Your task to perform on an android device: Open Chrome and go to the settings page Image 0: 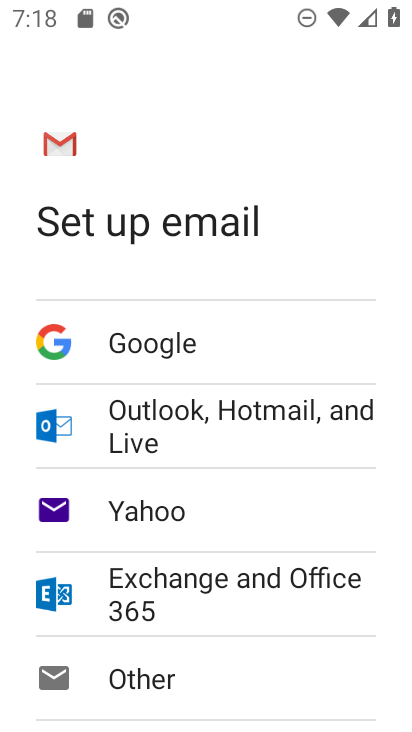
Step 0: press home button
Your task to perform on an android device: Open Chrome and go to the settings page Image 1: 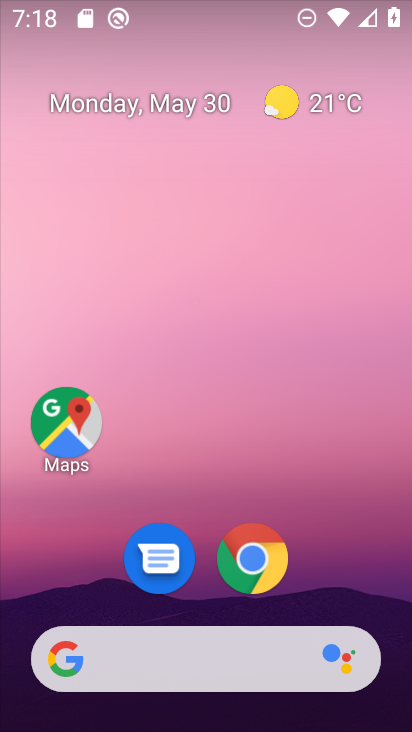
Step 1: click (254, 560)
Your task to perform on an android device: Open Chrome and go to the settings page Image 2: 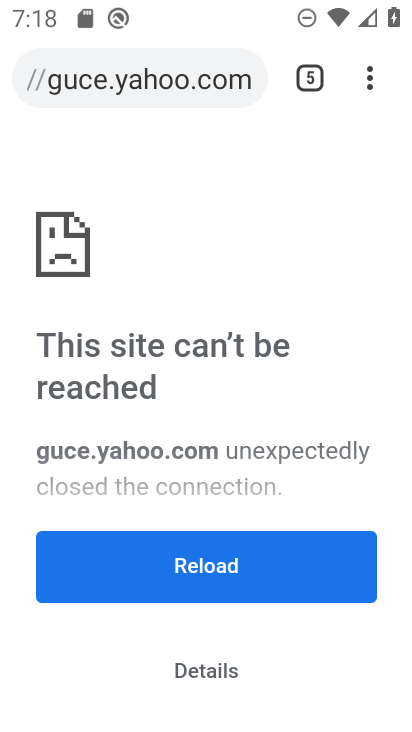
Step 2: click (374, 78)
Your task to perform on an android device: Open Chrome and go to the settings page Image 3: 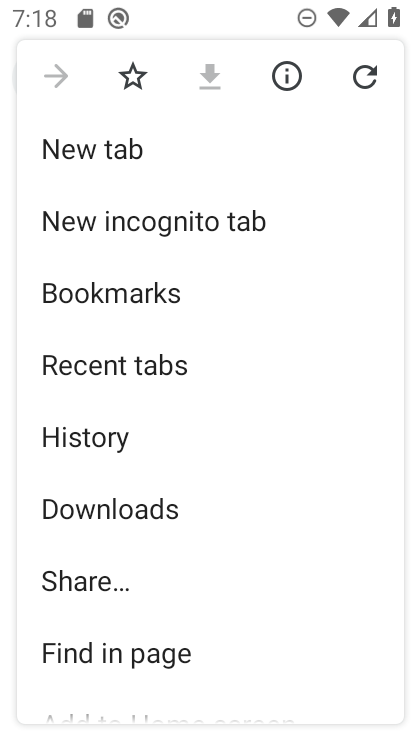
Step 3: drag from (230, 602) to (202, 319)
Your task to perform on an android device: Open Chrome and go to the settings page Image 4: 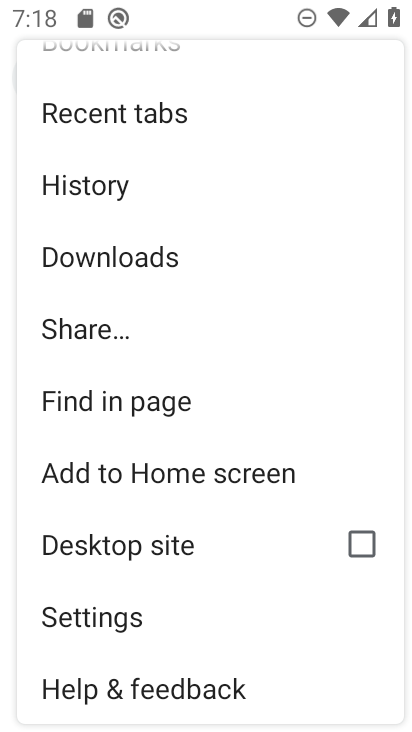
Step 4: click (110, 612)
Your task to perform on an android device: Open Chrome and go to the settings page Image 5: 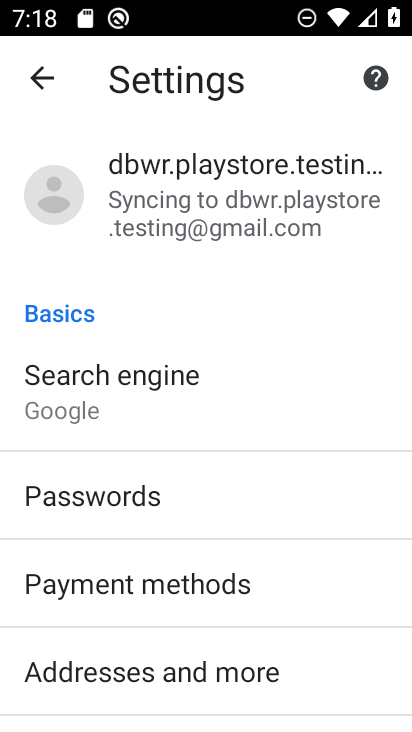
Step 5: task complete